Your task to perform on an android device: Do I have any events this weekend? Image 0: 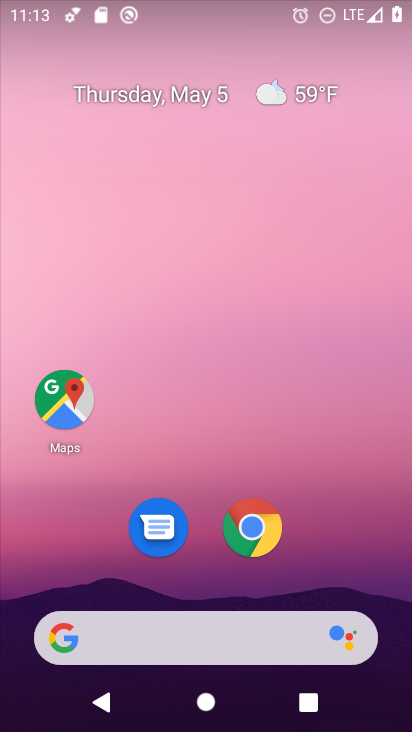
Step 0: drag from (274, 677) to (322, 42)
Your task to perform on an android device: Do I have any events this weekend? Image 1: 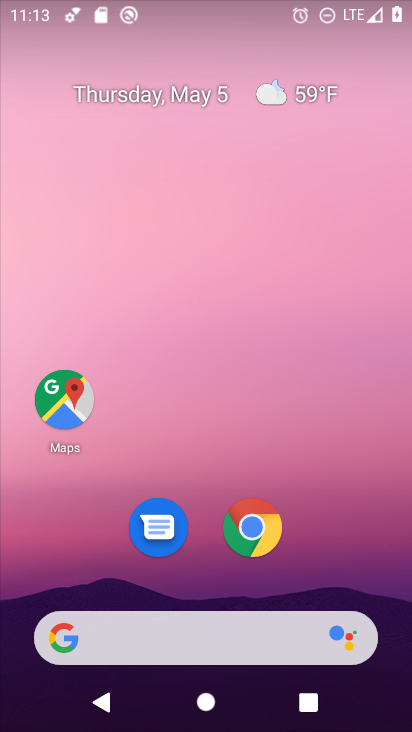
Step 1: drag from (254, 608) to (264, 27)
Your task to perform on an android device: Do I have any events this weekend? Image 2: 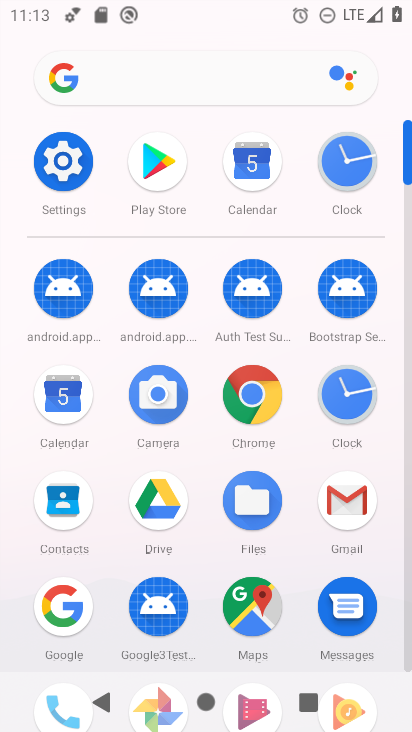
Step 2: click (67, 403)
Your task to perform on an android device: Do I have any events this weekend? Image 3: 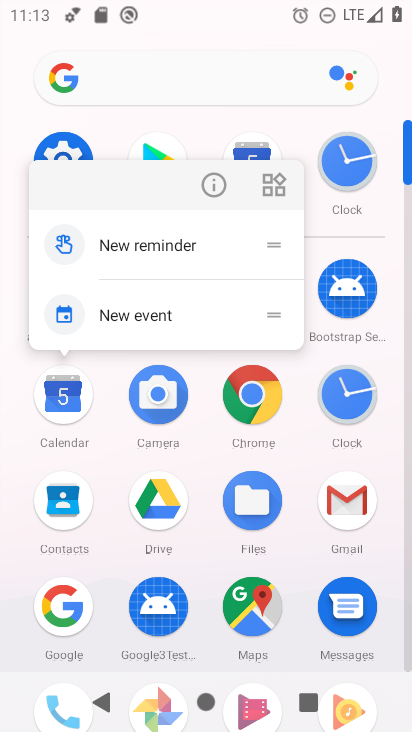
Step 3: click (61, 411)
Your task to perform on an android device: Do I have any events this weekend? Image 4: 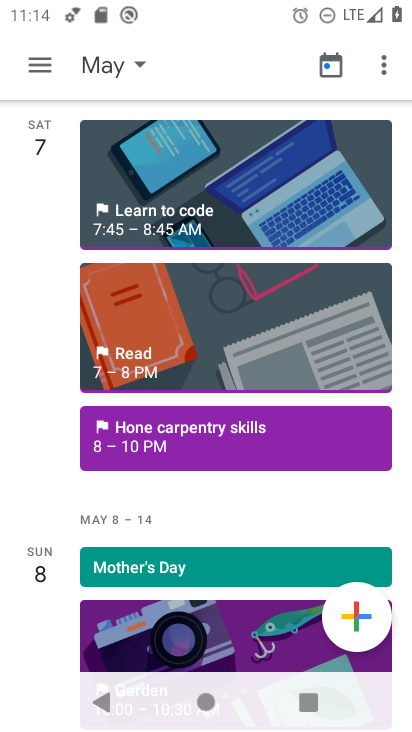
Step 4: task complete